Your task to perform on an android device: Go to battery settings Image 0: 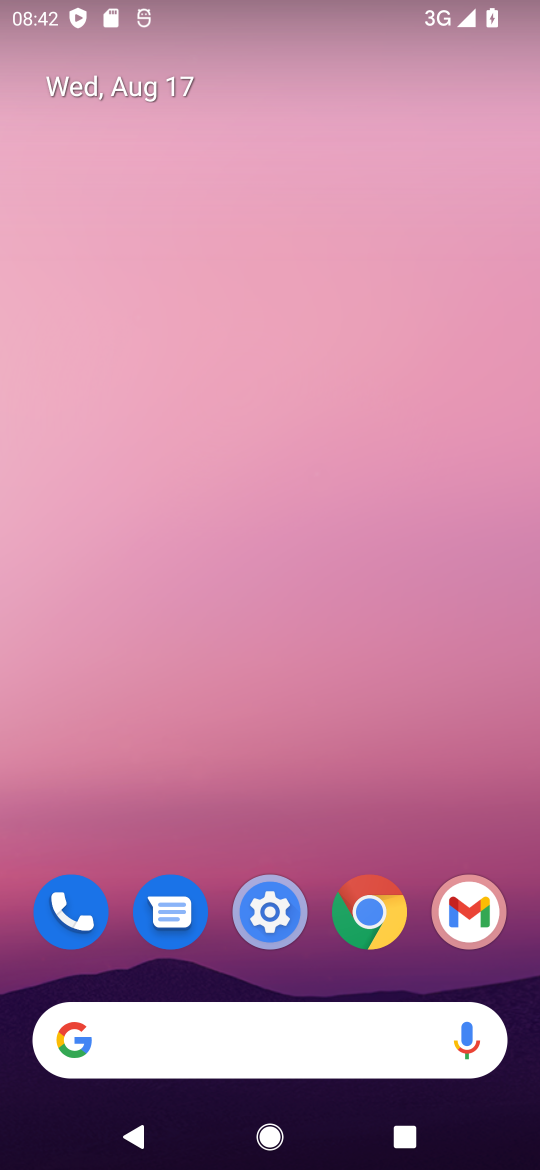
Step 0: click (266, 906)
Your task to perform on an android device: Go to battery settings Image 1: 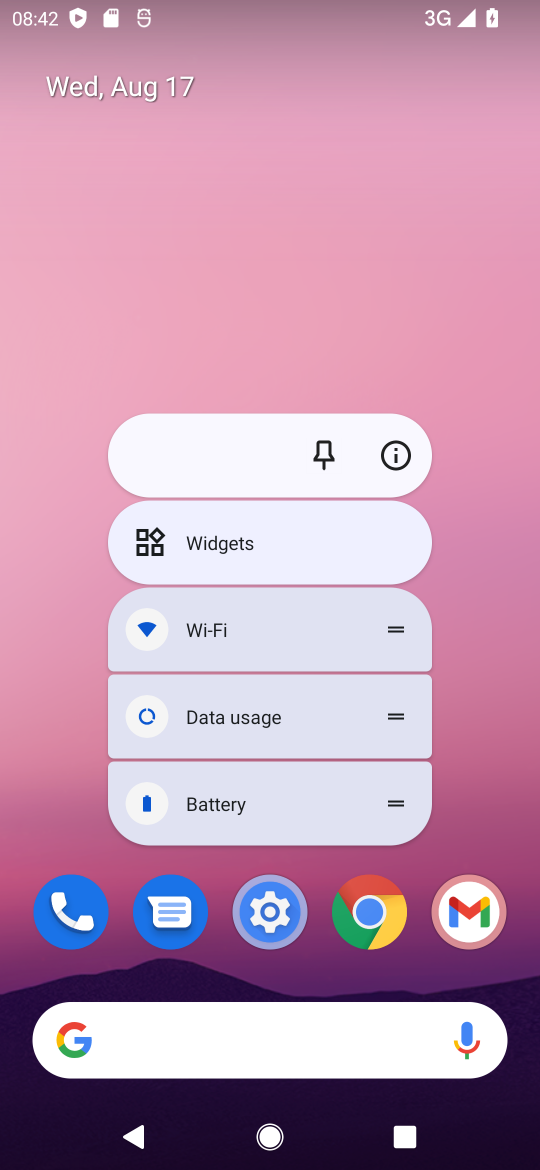
Step 1: click (294, 899)
Your task to perform on an android device: Go to battery settings Image 2: 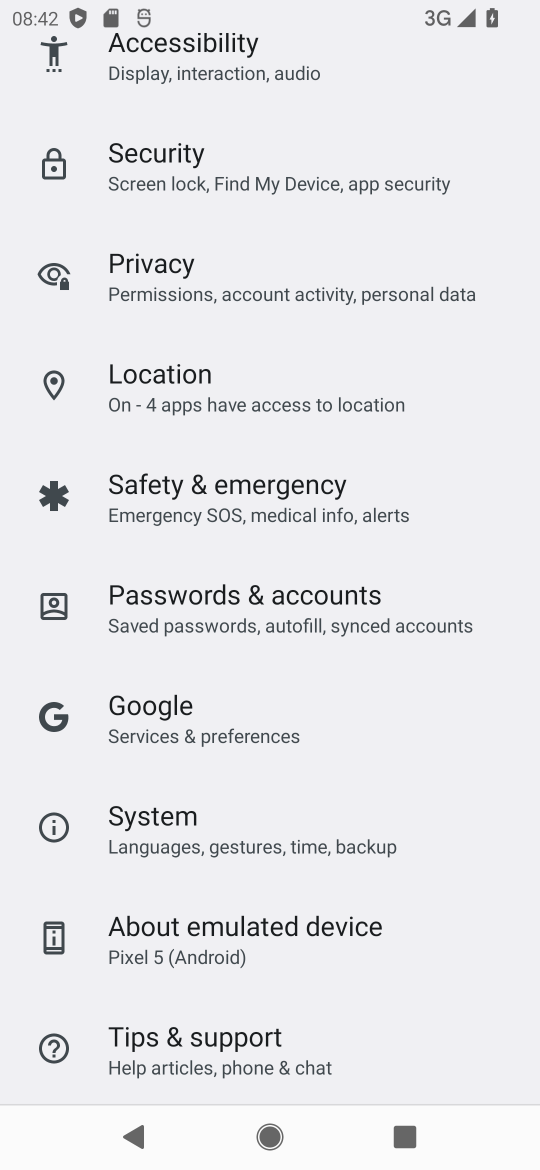
Step 2: drag from (194, 1024) to (174, 563)
Your task to perform on an android device: Go to battery settings Image 3: 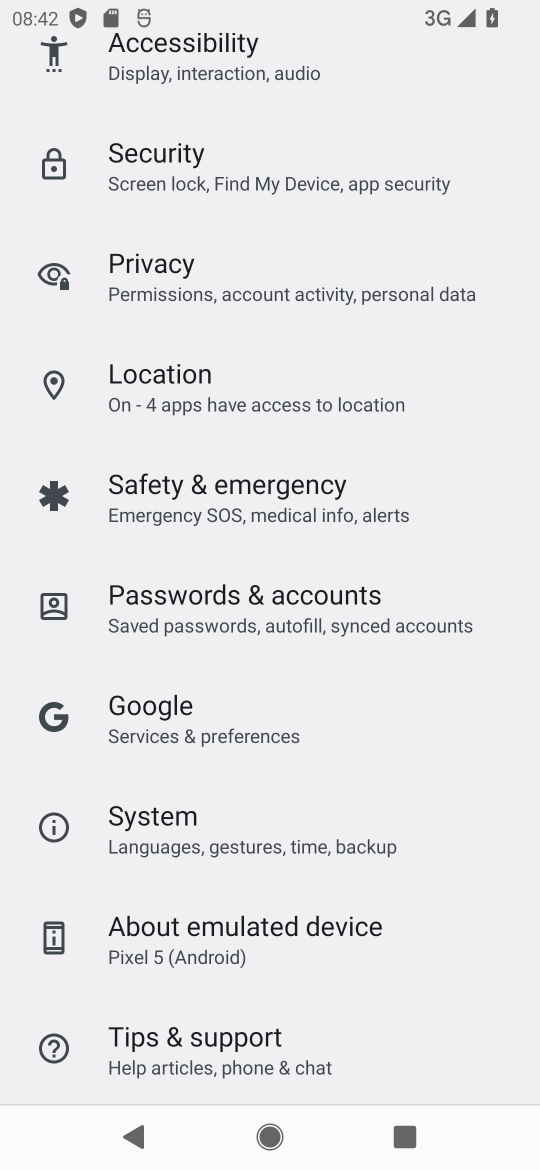
Step 3: drag from (206, 162) to (244, 873)
Your task to perform on an android device: Go to battery settings Image 4: 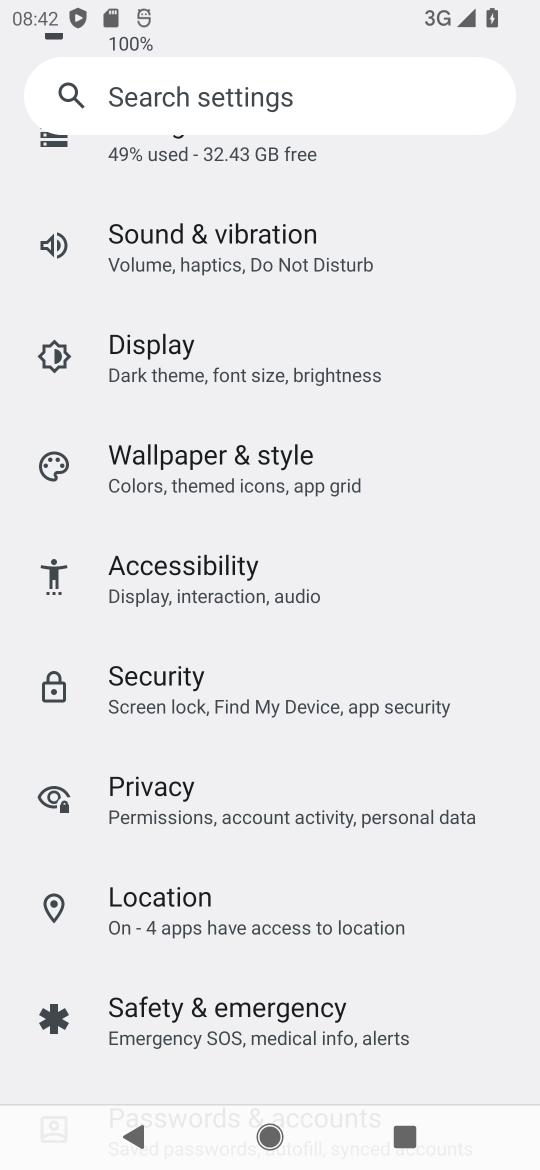
Step 4: drag from (204, 185) to (236, 731)
Your task to perform on an android device: Go to battery settings Image 5: 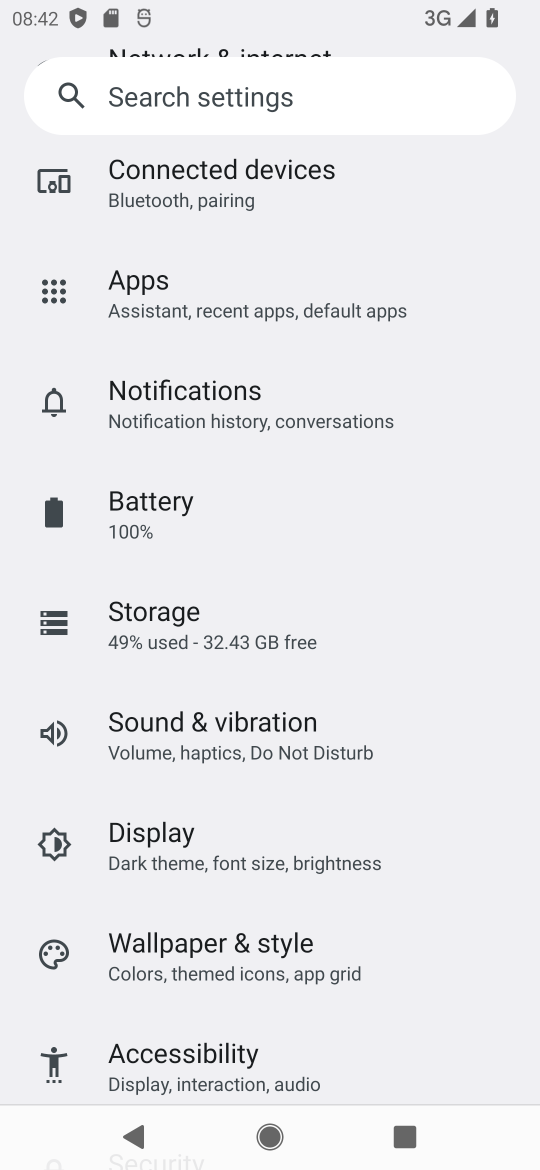
Step 5: click (164, 517)
Your task to perform on an android device: Go to battery settings Image 6: 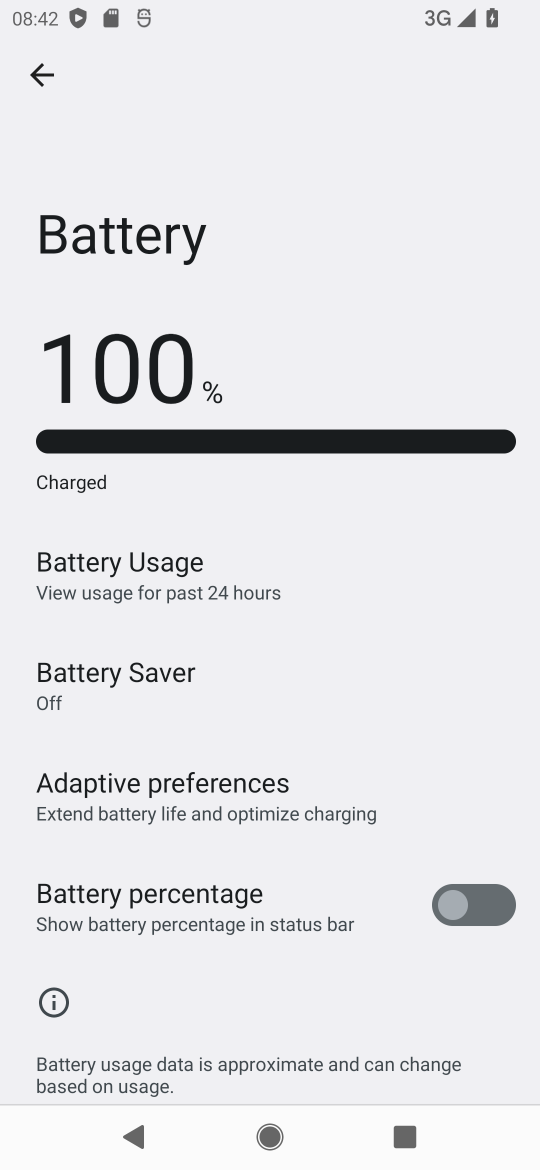
Step 6: task complete